Your task to perform on an android device: Do I have any events today? Image 0: 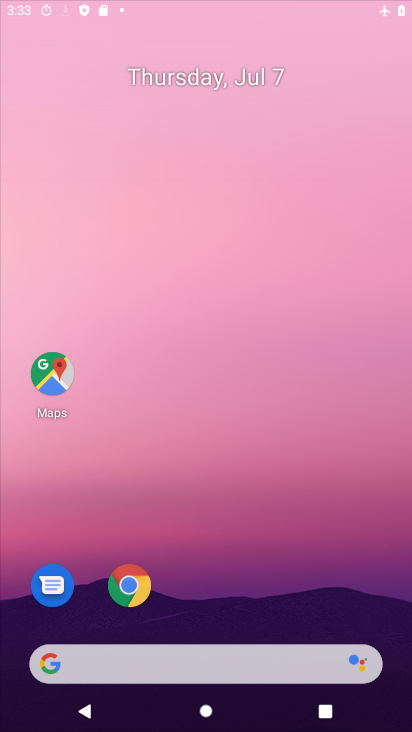
Step 0: drag from (276, 685) to (214, 301)
Your task to perform on an android device: Do I have any events today? Image 1: 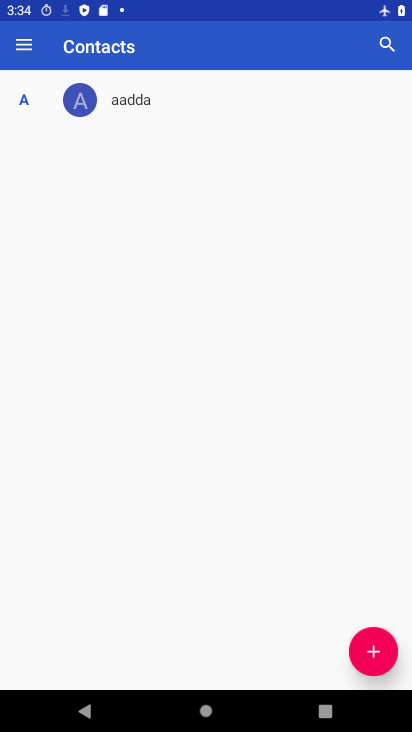
Step 1: click (36, 29)
Your task to perform on an android device: Do I have any events today? Image 2: 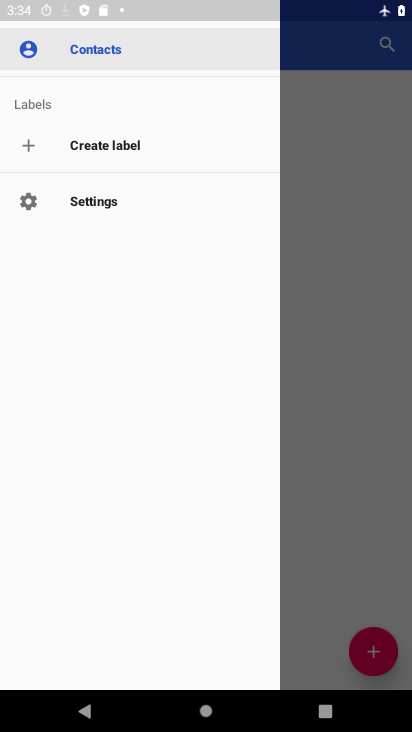
Step 2: press back button
Your task to perform on an android device: Do I have any events today? Image 3: 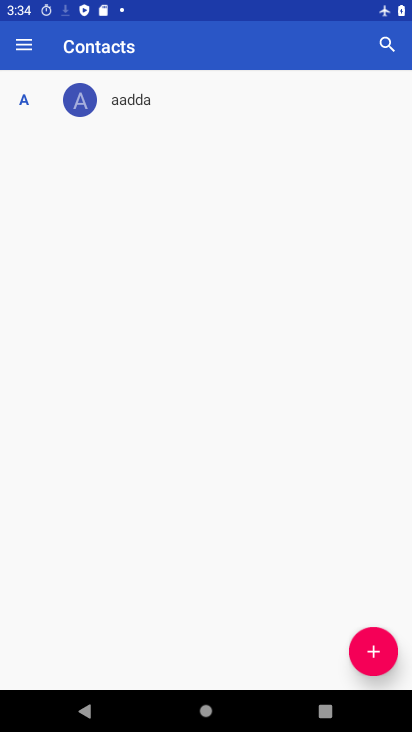
Step 3: press back button
Your task to perform on an android device: Do I have any events today? Image 4: 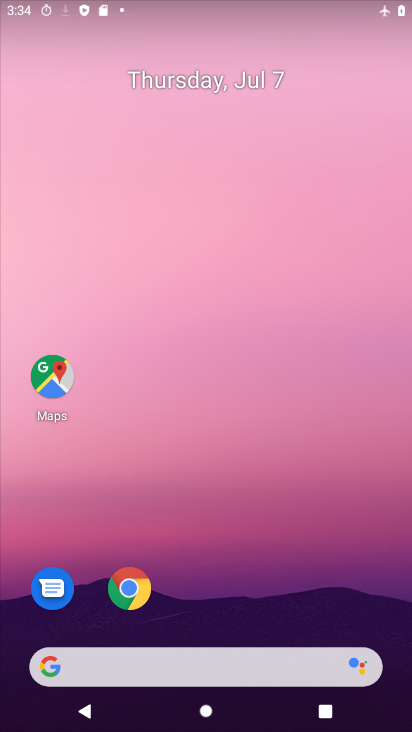
Step 4: drag from (251, 657) to (213, 215)
Your task to perform on an android device: Do I have any events today? Image 5: 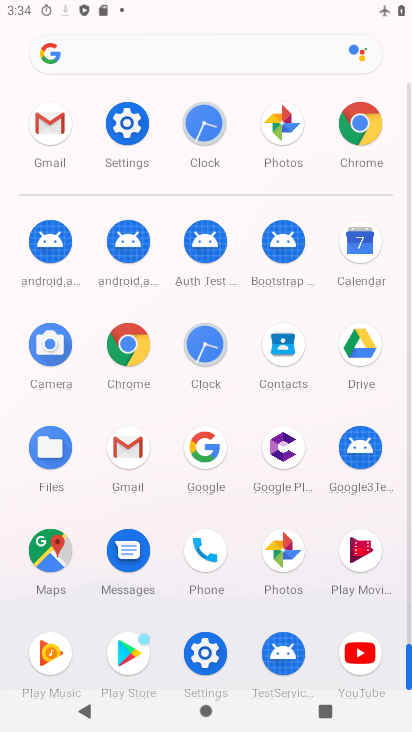
Step 5: click (359, 244)
Your task to perform on an android device: Do I have any events today? Image 6: 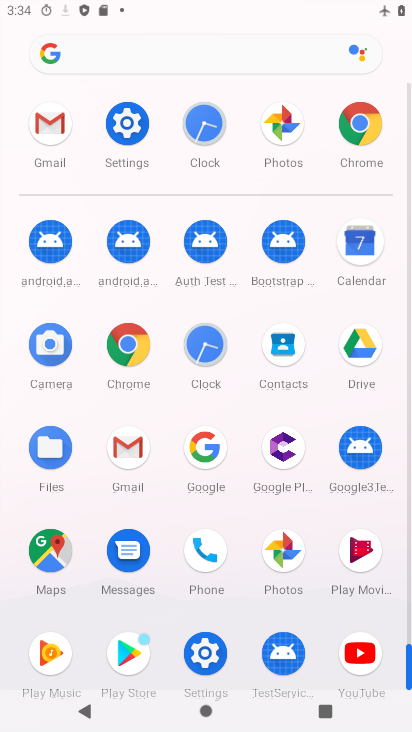
Step 6: click (360, 244)
Your task to perform on an android device: Do I have any events today? Image 7: 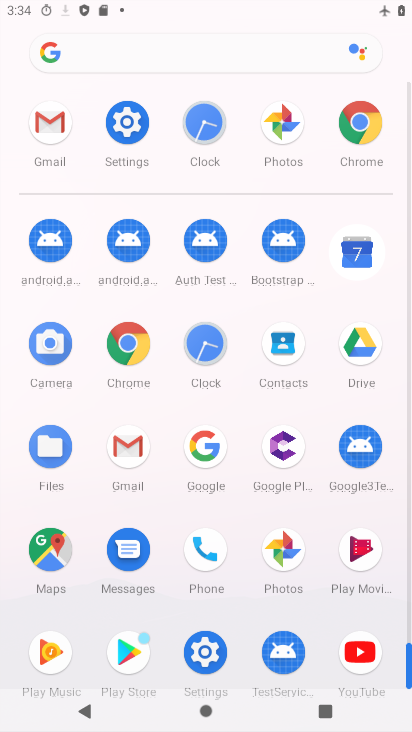
Step 7: click (360, 244)
Your task to perform on an android device: Do I have any events today? Image 8: 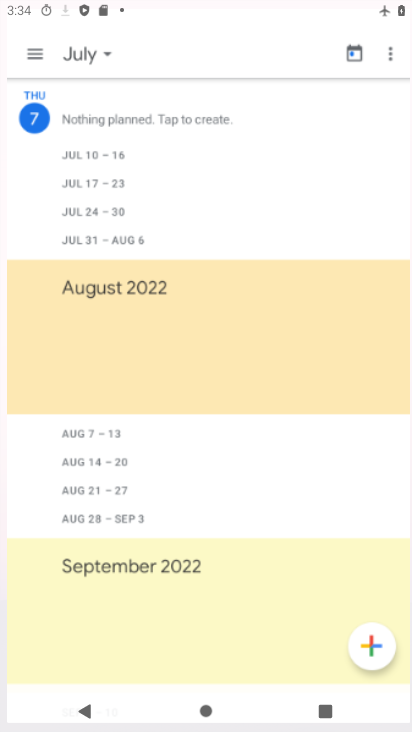
Step 8: click (360, 244)
Your task to perform on an android device: Do I have any events today? Image 9: 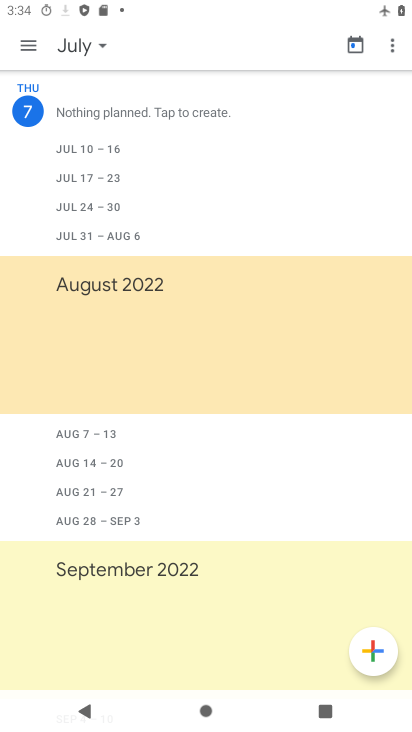
Step 9: click (360, 244)
Your task to perform on an android device: Do I have any events today? Image 10: 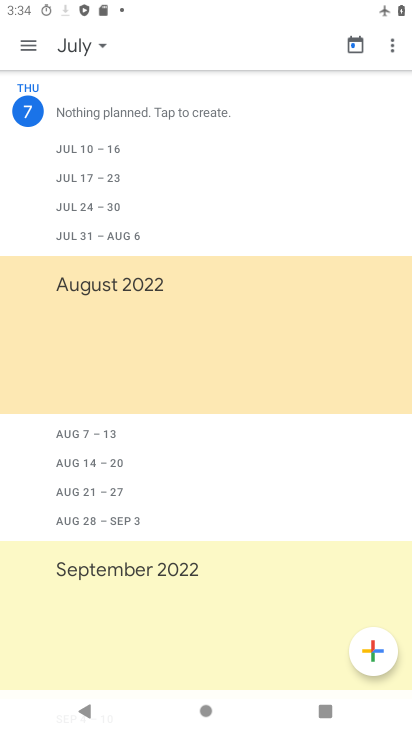
Step 10: task complete